Your task to perform on an android device: Open the calendar and show me this week's events? Image 0: 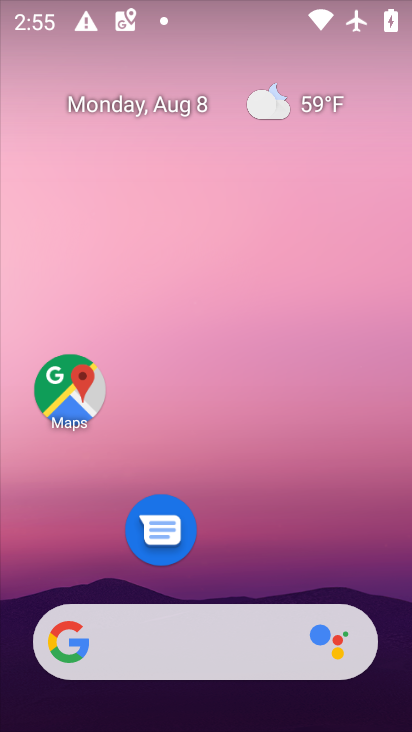
Step 0: drag from (220, 554) to (201, 188)
Your task to perform on an android device: Open the calendar and show me this week's events? Image 1: 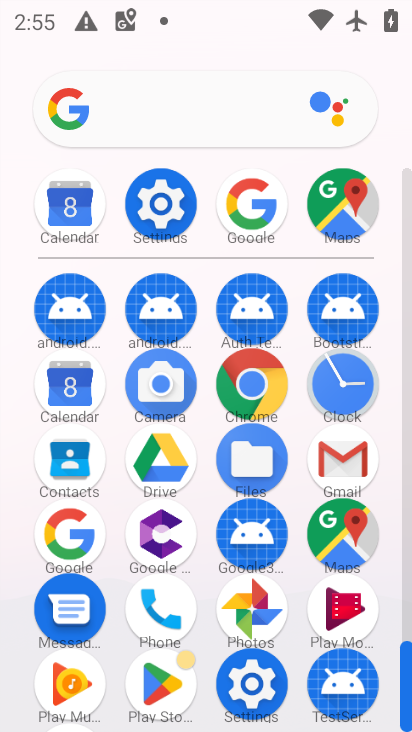
Step 1: click (78, 386)
Your task to perform on an android device: Open the calendar and show me this week's events? Image 2: 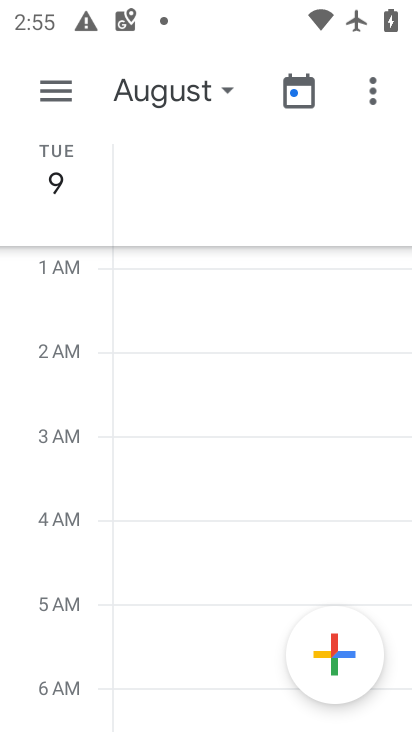
Step 2: task complete